Your task to perform on an android device: Find coffee shops on Maps Image 0: 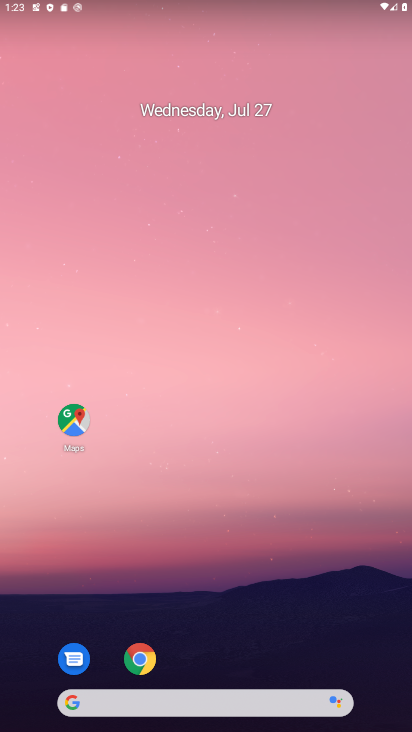
Step 0: drag from (281, 505) to (264, 34)
Your task to perform on an android device: Find coffee shops on Maps Image 1: 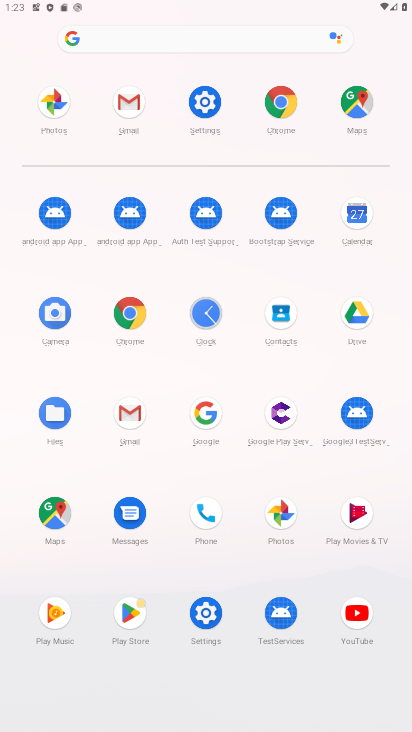
Step 1: click (49, 527)
Your task to perform on an android device: Find coffee shops on Maps Image 2: 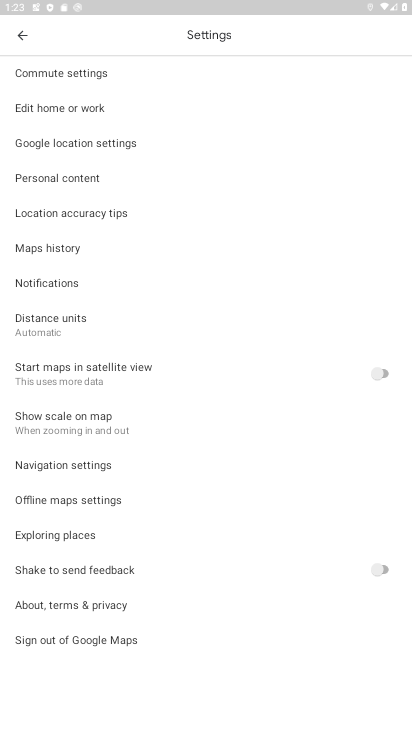
Step 2: click (24, 29)
Your task to perform on an android device: Find coffee shops on Maps Image 3: 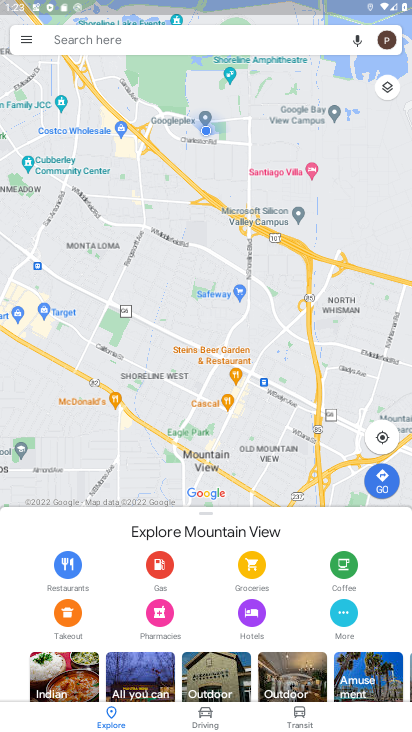
Step 3: click (244, 46)
Your task to perform on an android device: Find coffee shops on Maps Image 4: 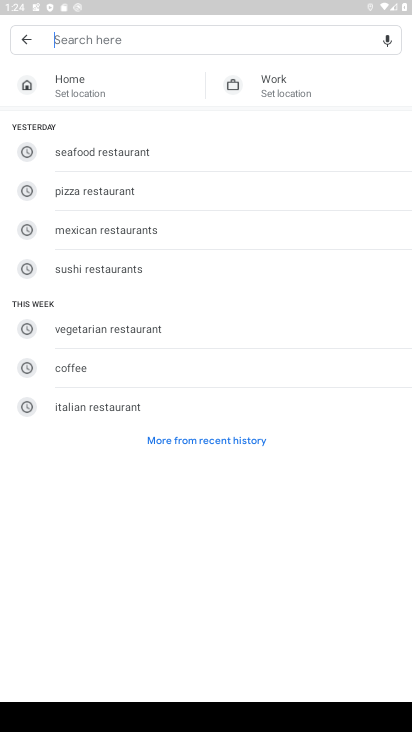
Step 4: type "coffee shops"
Your task to perform on an android device: Find coffee shops on Maps Image 5: 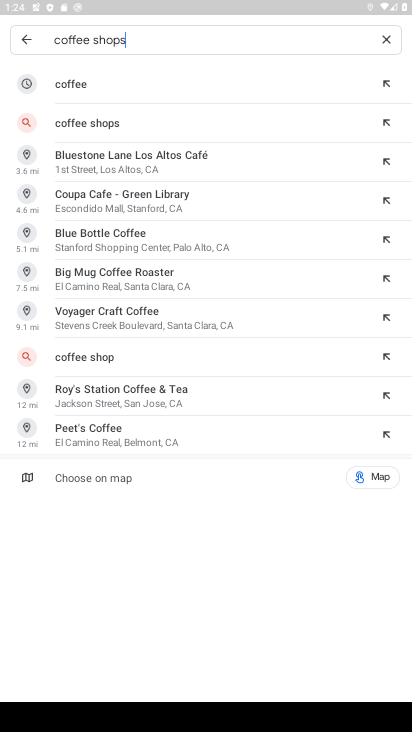
Step 5: click (111, 125)
Your task to perform on an android device: Find coffee shops on Maps Image 6: 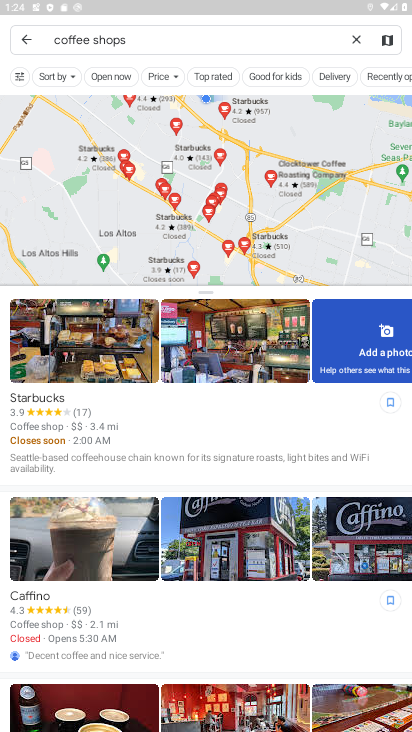
Step 6: task complete